Your task to perform on an android device: Open location settings Image 0: 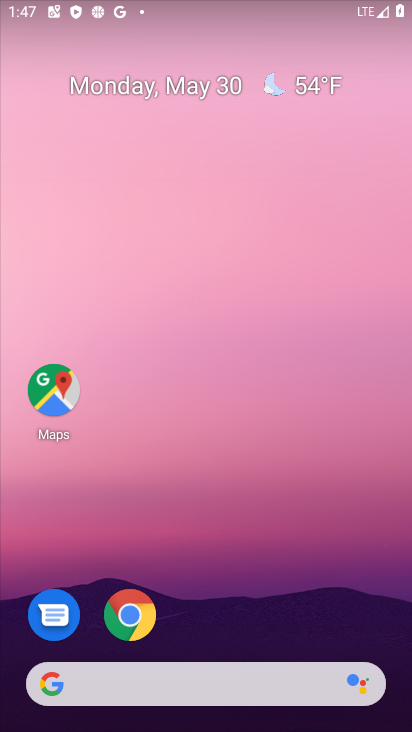
Step 0: drag from (327, 630) to (290, 200)
Your task to perform on an android device: Open location settings Image 1: 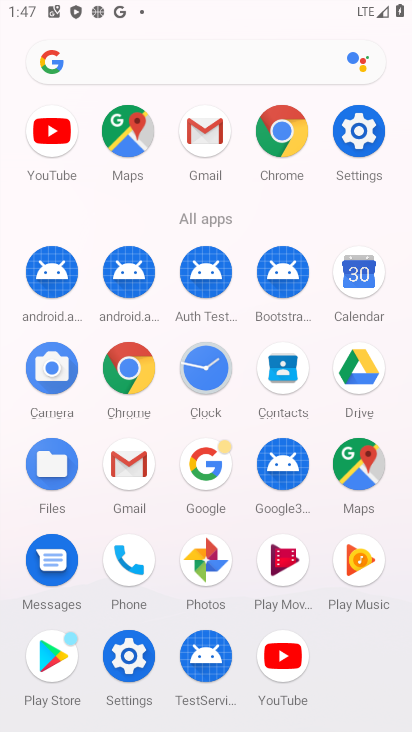
Step 1: click (352, 133)
Your task to perform on an android device: Open location settings Image 2: 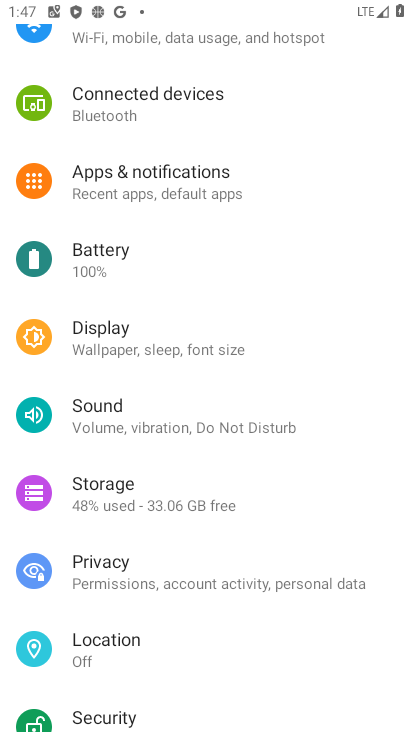
Step 2: click (167, 645)
Your task to perform on an android device: Open location settings Image 3: 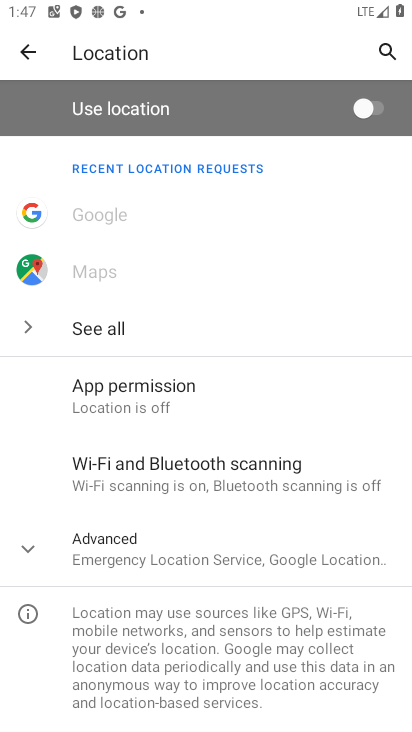
Step 3: task complete